Your task to perform on an android device: toggle priority inbox in the gmail app Image 0: 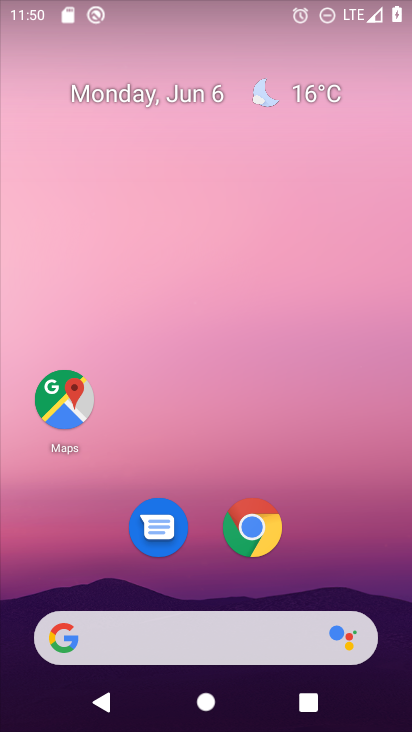
Step 0: drag from (338, 560) to (374, 94)
Your task to perform on an android device: toggle priority inbox in the gmail app Image 1: 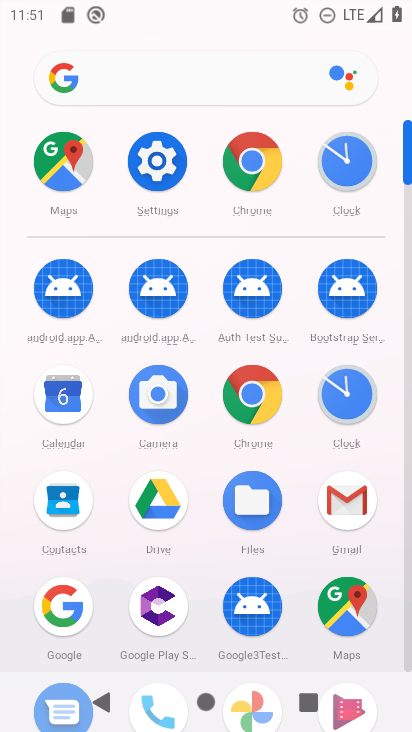
Step 1: click (352, 499)
Your task to perform on an android device: toggle priority inbox in the gmail app Image 2: 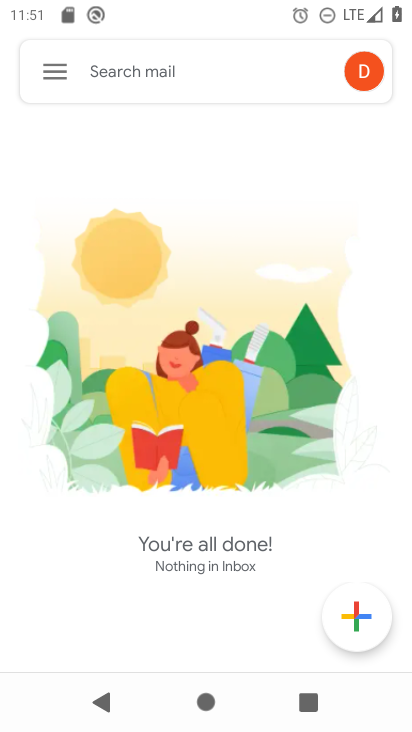
Step 2: click (54, 75)
Your task to perform on an android device: toggle priority inbox in the gmail app Image 3: 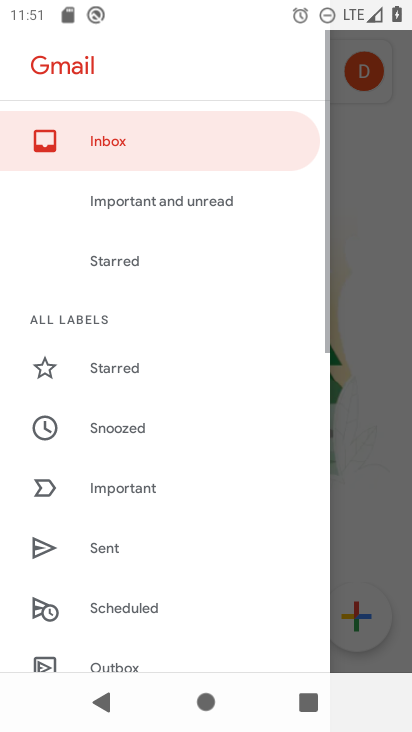
Step 3: drag from (256, 444) to (255, 284)
Your task to perform on an android device: toggle priority inbox in the gmail app Image 4: 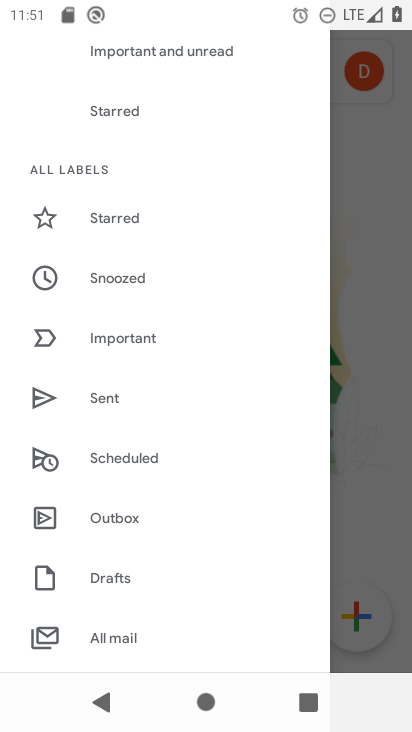
Step 4: drag from (253, 447) to (243, 224)
Your task to perform on an android device: toggle priority inbox in the gmail app Image 5: 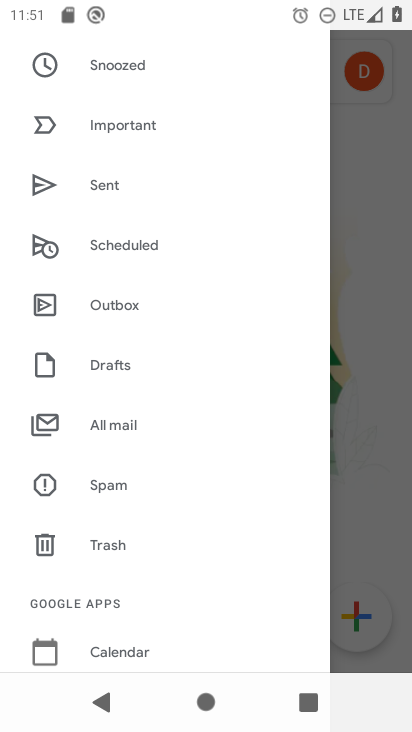
Step 5: drag from (240, 422) to (244, 268)
Your task to perform on an android device: toggle priority inbox in the gmail app Image 6: 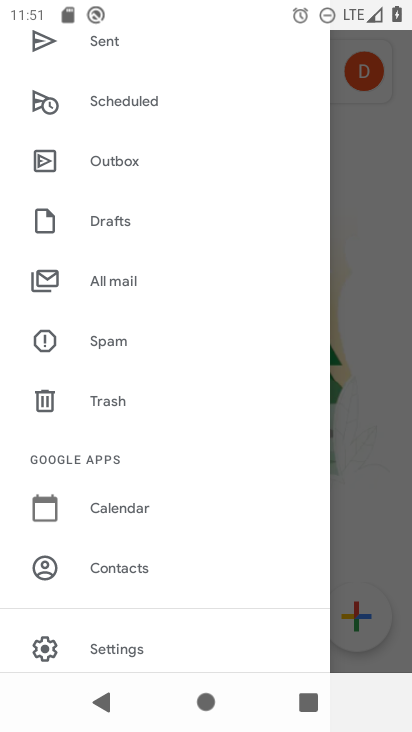
Step 6: drag from (256, 432) to (248, 245)
Your task to perform on an android device: toggle priority inbox in the gmail app Image 7: 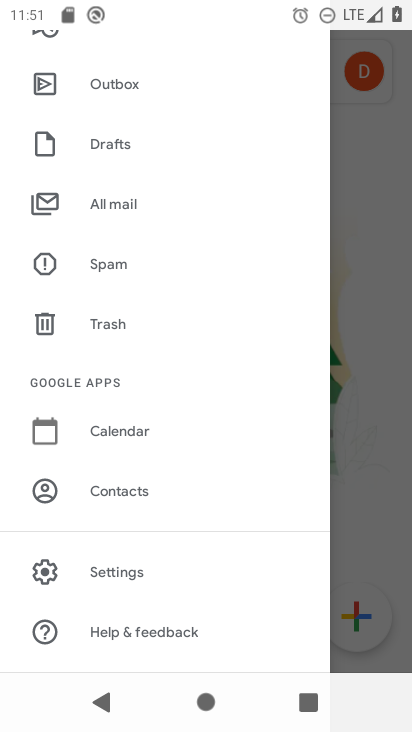
Step 7: drag from (245, 440) to (246, 310)
Your task to perform on an android device: toggle priority inbox in the gmail app Image 8: 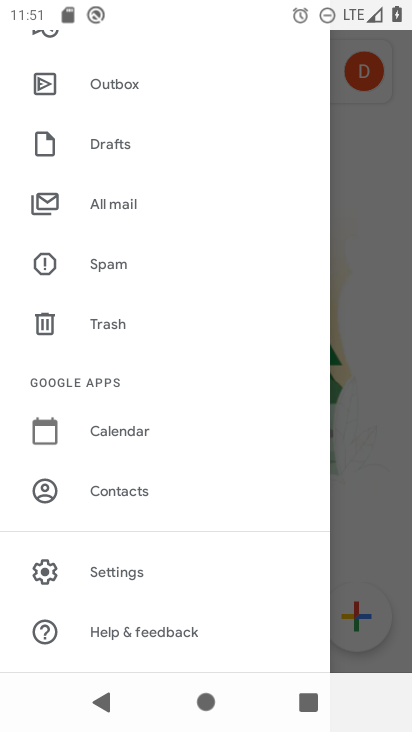
Step 8: click (144, 573)
Your task to perform on an android device: toggle priority inbox in the gmail app Image 9: 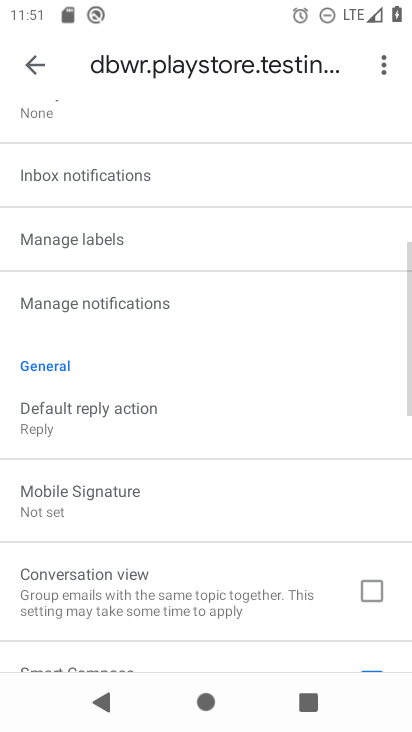
Step 9: task complete